Your task to perform on an android device: toggle sleep mode Image 0: 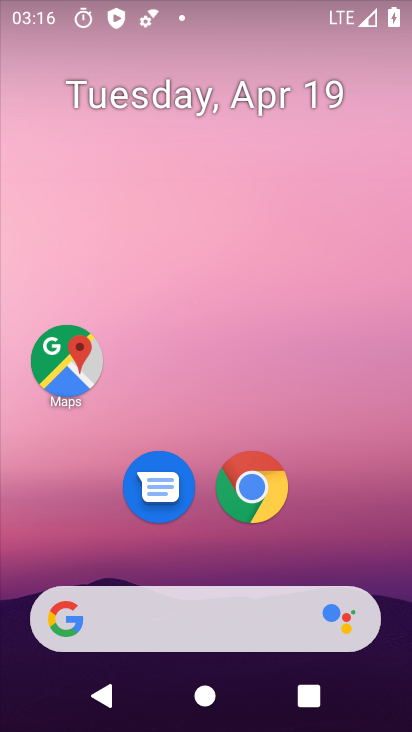
Step 0: drag from (186, 442) to (262, 3)
Your task to perform on an android device: toggle sleep mode Image 1: 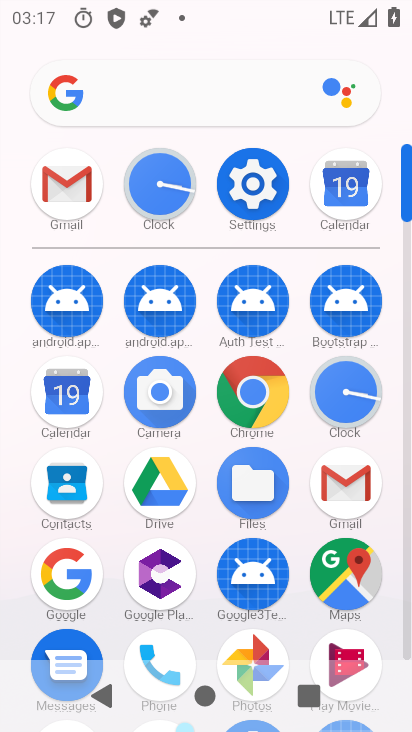
Step 1: click (246, 181)
Your task to perform on an android device: toggle sleep mode Image 2: 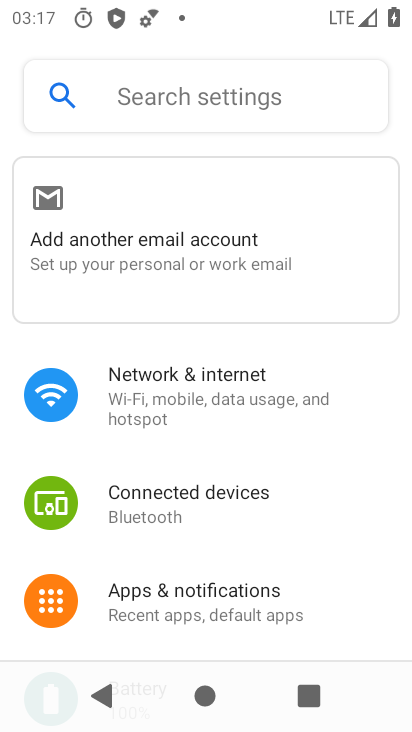
Step 2: click (154, 92)
Your task to perform on an android device: toggle sleep mode Image 3: 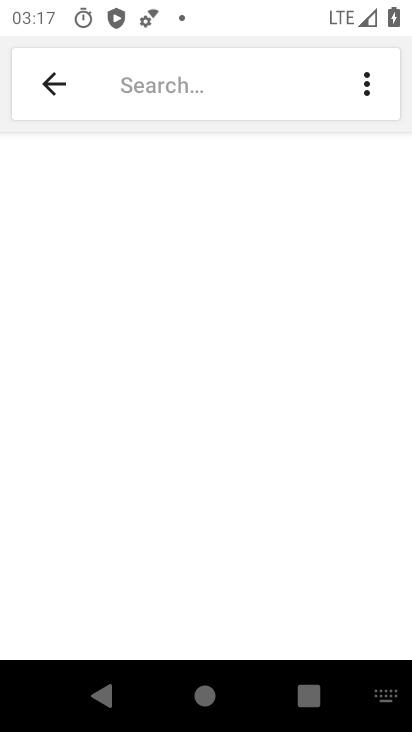
Step 3: type "sleep mode"
Your task to perform on an android device: toggle sleep mode Image 4: 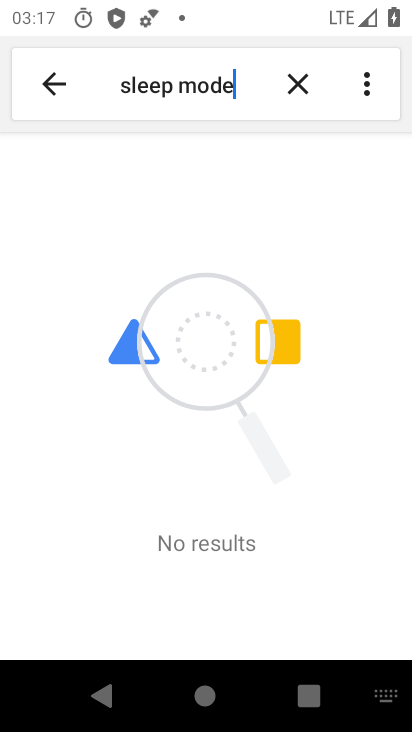
Step 4: task complete